Your task to perform on an android device: Go to wifi settings Image 0: 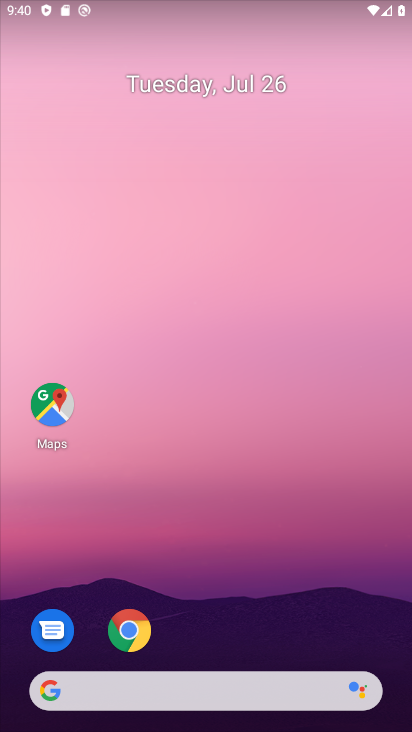
Step 0: drag from (384, 640) to (327, 136)
Your task to perform on an android device: Go to wifi settings Image 1: 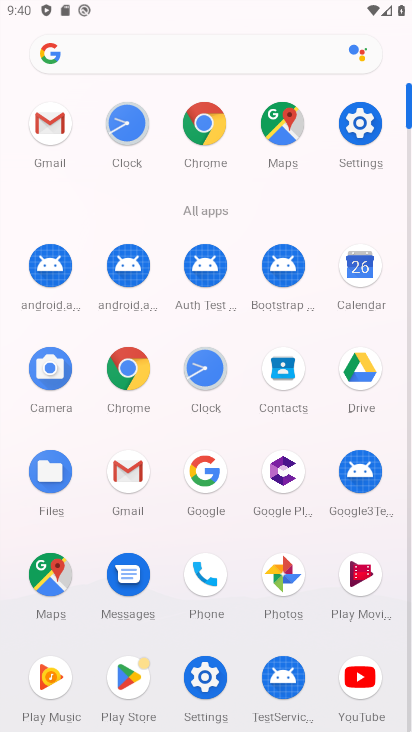
Step 1: click (204, 676)
Your task to perform on an android device: Go to wifi settings Image 2: 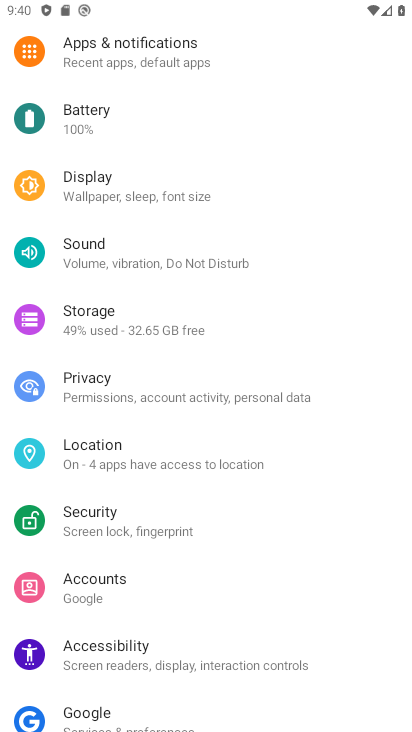
Step 2: drag from (266, 99) to (293, 488)
Your task to perform on an android device: Go to wifi settings Image 3: 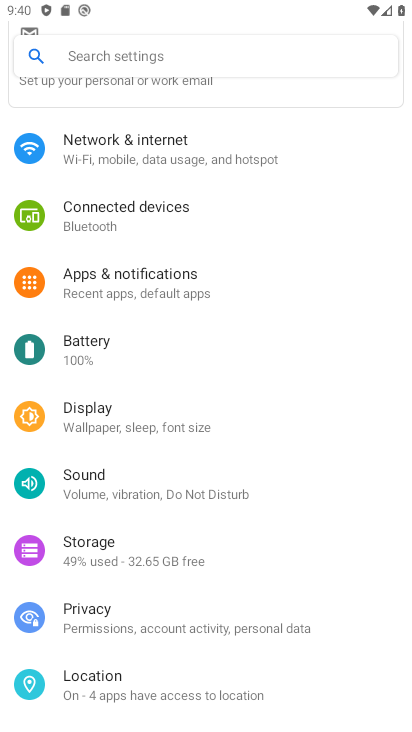
Step 3: click (132, 149)
Your task to perform on an android device: Go to wifi settings Image 4: 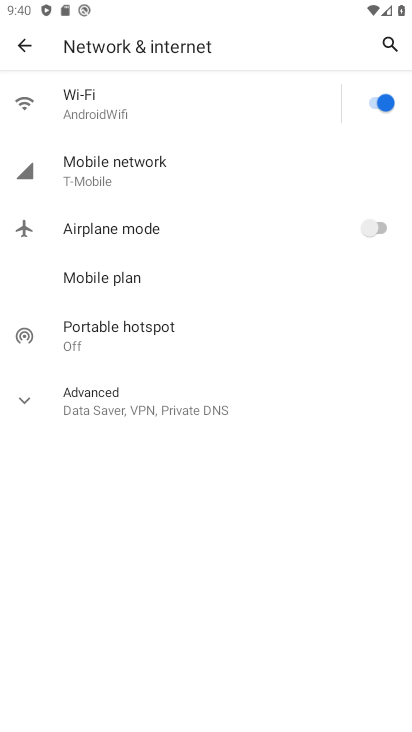
Step 4: click (69, 95)
Your task to perform on an android device: Go to wifi settings Image 5: 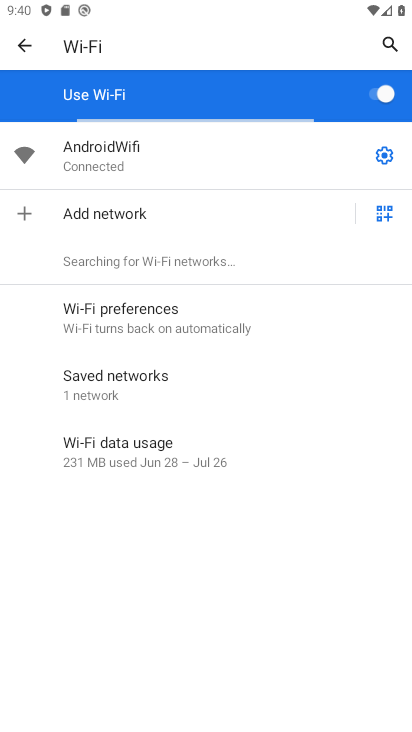
Step 5: click (383, 153)
Your task to perform on an android device: Go to wifi settings Image 6: 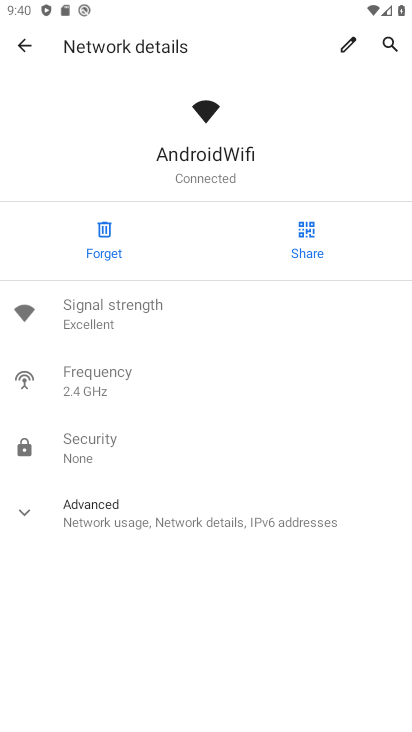
Step 6: task complete